Your task to perform on an android device: Open Wikipedia Image 0: 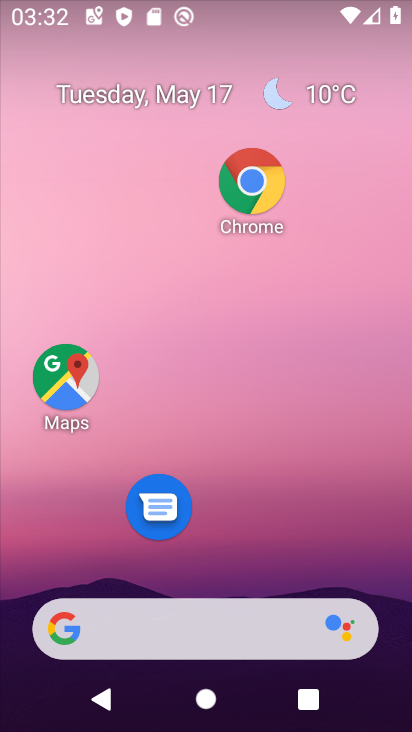
Step 0: click (256, 183)
Your task to perform on an android device: Open Wikipedia Image 1: 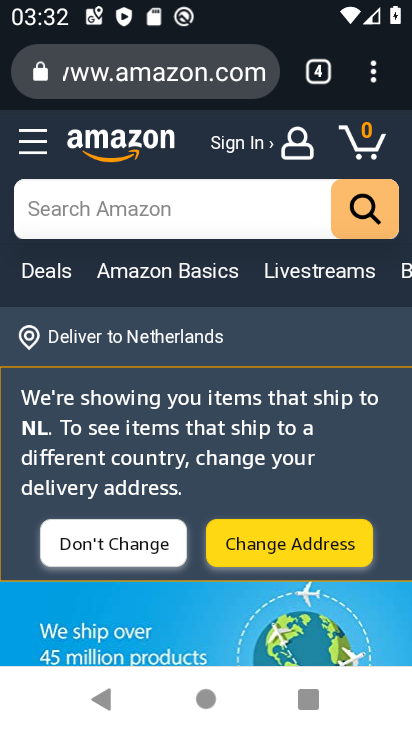
Step 1: click (312, 66)
Your task to perform on an android device: Open Wikipedia Image 2: 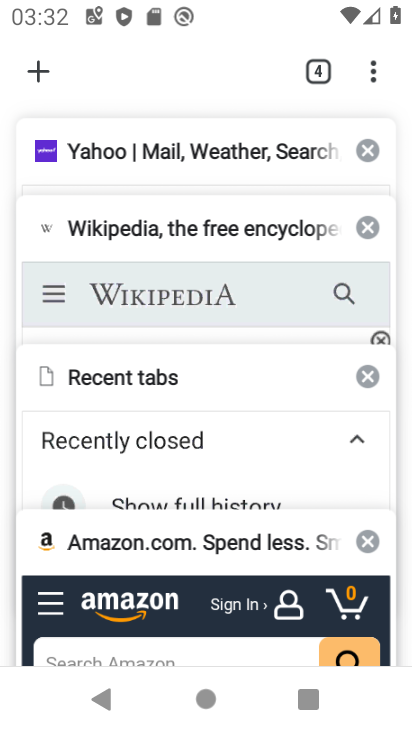
Step 2: click (111, 318)
Your task to perform on an android device: Open Wikipedia Image 3: 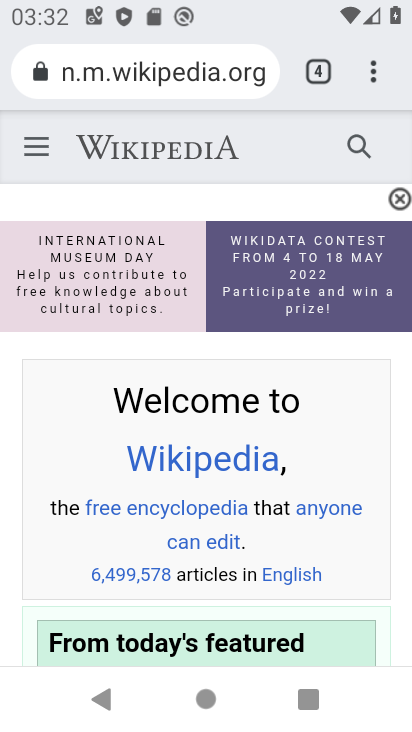
Step 3: task complete